Your task to perform on an android device: toggle priority inbox in the gmail app Image 0: 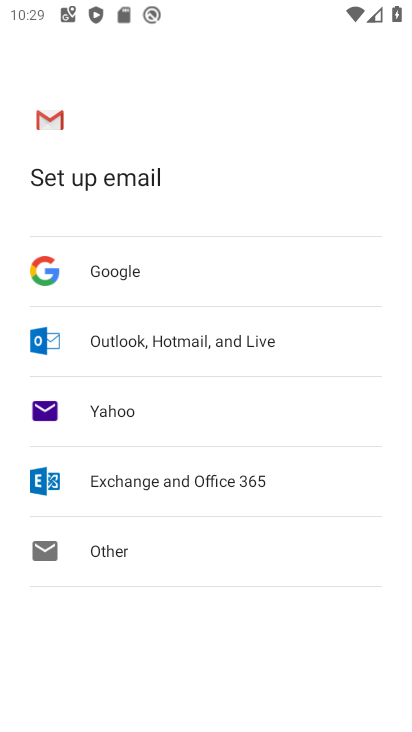
Step 0: press home button
Your task to perform on an android device: toggle priority inbox in the gmail app Image 1: 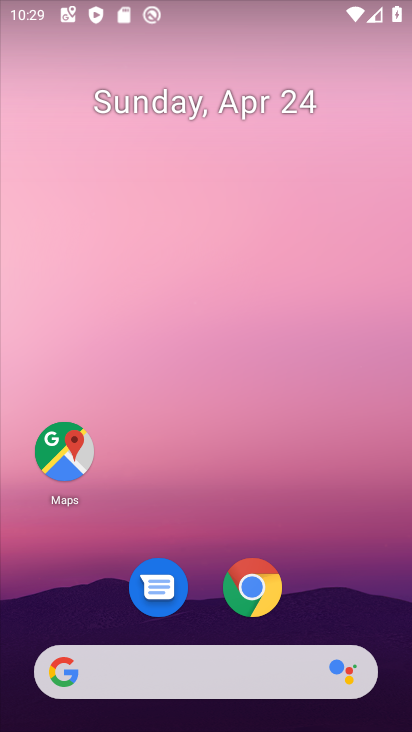
Step 1: drag from (370, 520) to (336, 73)
Your task to perform on an android device: toggle priority inbox in the gmail app Image 2: 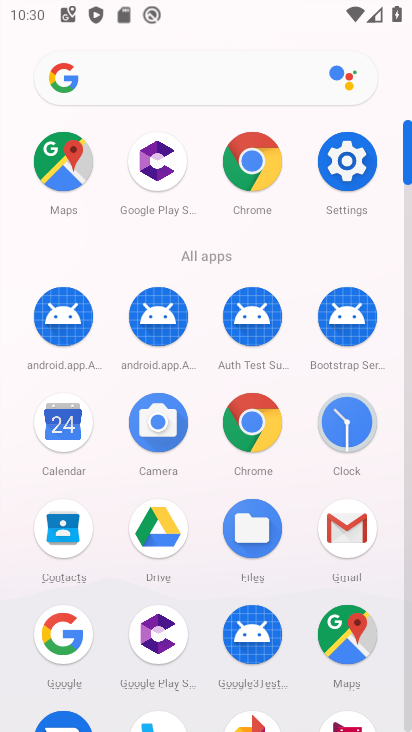
Step 2: click (373, 535)
Your task to perform on an android device: toggle priority inbox in the gmail app Image 3: 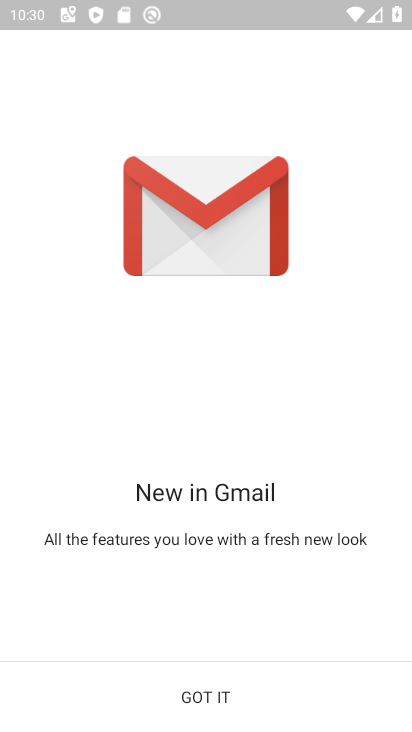
Step 3: click (197, 695)
Your task to perform on an android device: toggle priority inbox in the gmail app Image 4: 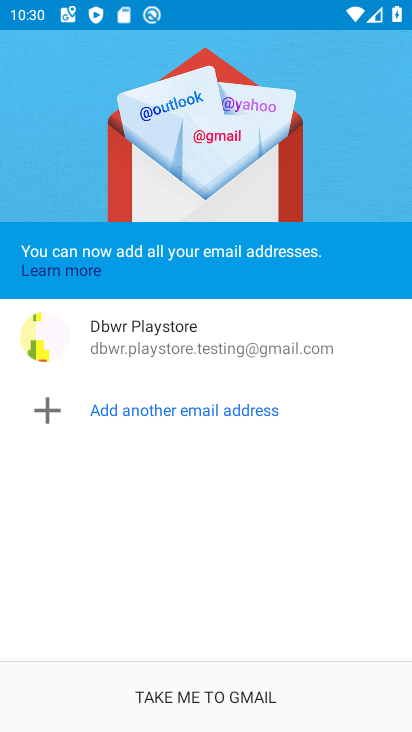
Step 4: click (205, 693)
Your task to perform on an android device: toggle priority inbox in the gmail app Image 5: 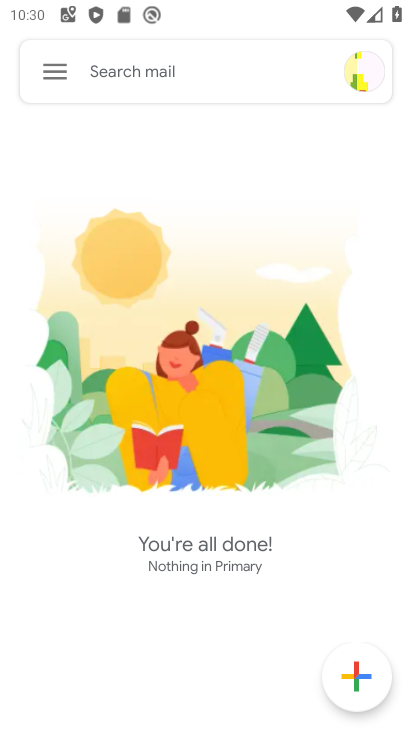
Step 5: click (60, 64)
Your task to perform on an android device: toggle priority inbox in the gmail app Image 6: 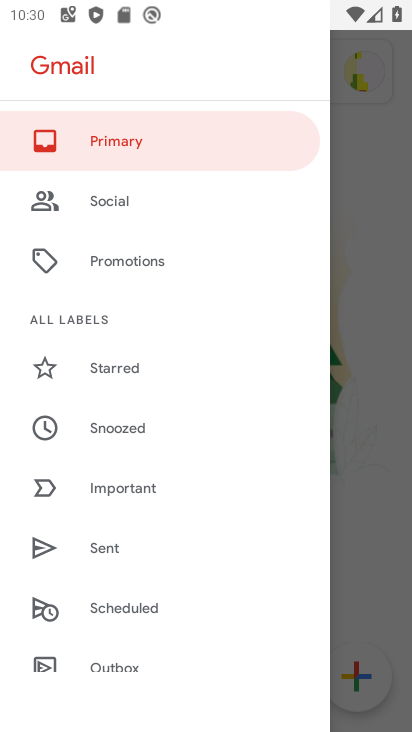
Step 6: drag from (168, 577) to (183, 195)
Your task to perform on an android device: toggle priority inbox in the gmail app Image 7: 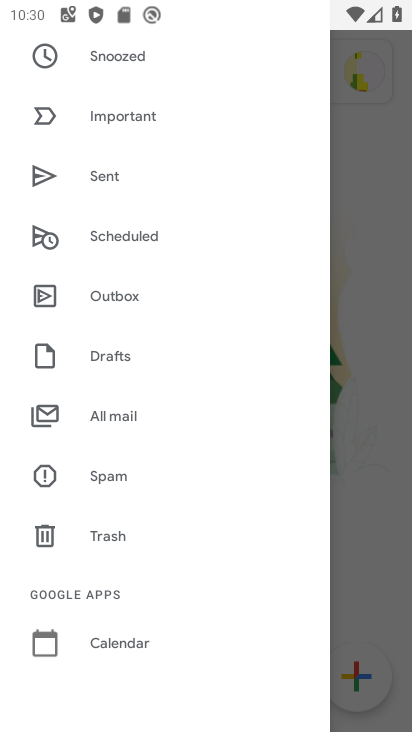
Step 7: drag from (156, 587) to (162, 272)
Your task to perform on an android device: toggle priority inbox in the gmail app Image 8: 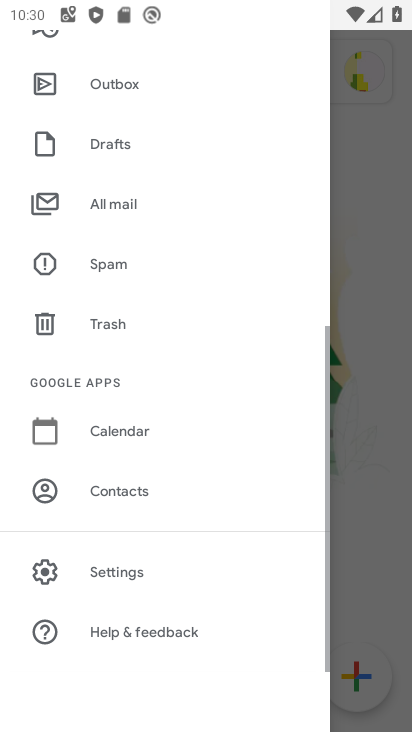
Step 8: click (133, 561)
Your task to perform on an android device: toggle priority inbox in the gmail app Image 9: 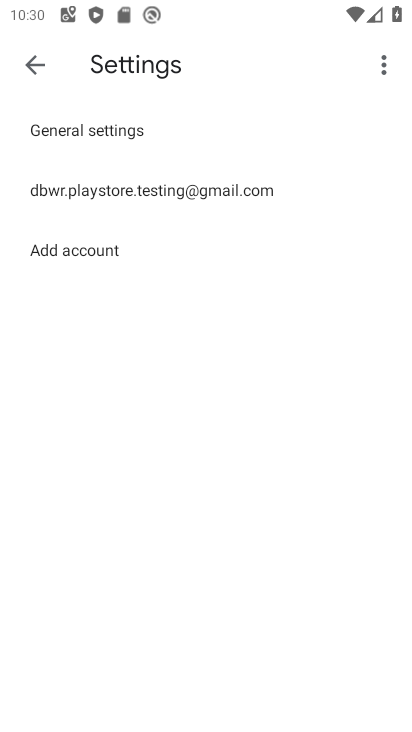
Step 9: click (156, 194)
Your task to perform on an android device: toggle priority inbox in the gmail app Image 10: 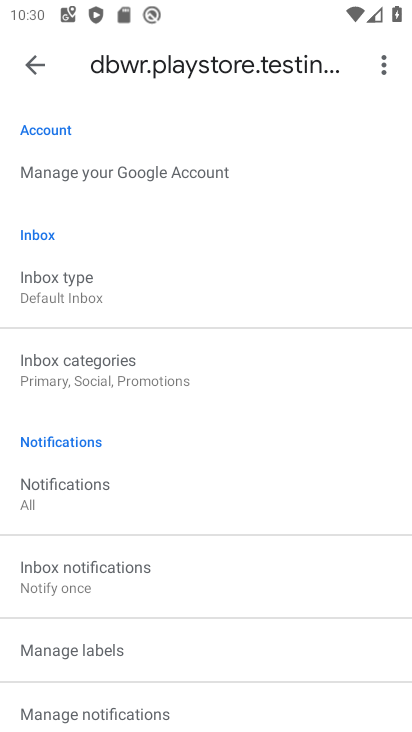
Step 10: click (92, 281)
Your task to perform on an android device: toggle priority inbox in the gmail app Image 11: 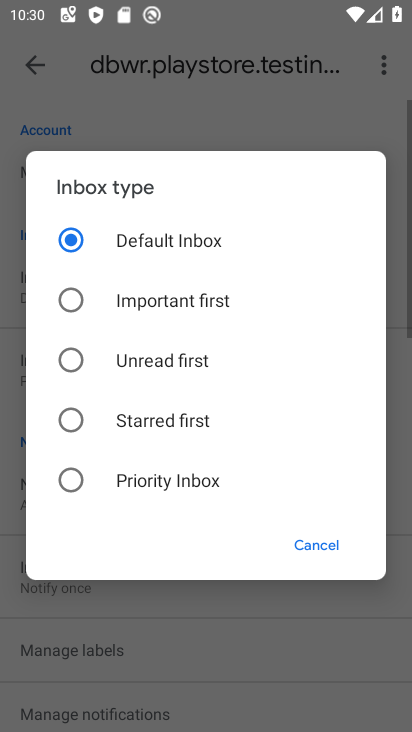
Step 11: click (78, 474)
Your task to perform on an android device: toggle priority inbox in the gmail app Image 12: 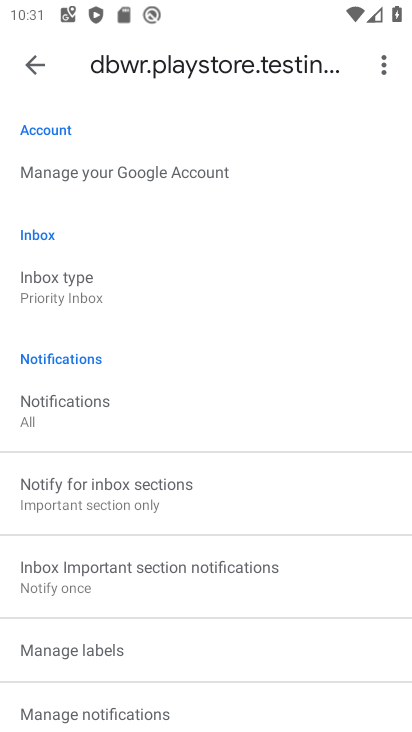
Step 12: task complete